Your task to perform on an android device: Open CNN.com Image 0: 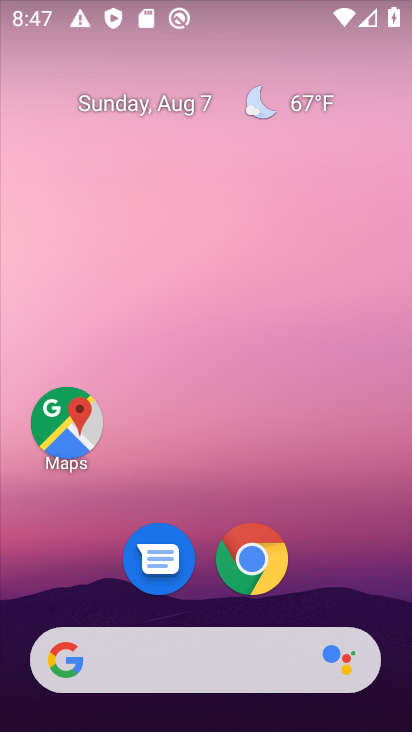
Step 0: click (281, 556)
Your task to perform on an android device: Open CNN.com Image 1: 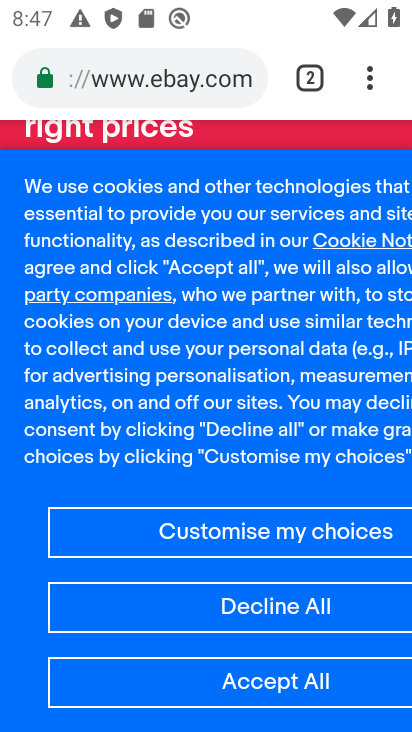
Step 1: click (316, 90)
Your task to perform on an android device: Open CNN.com Image 2: 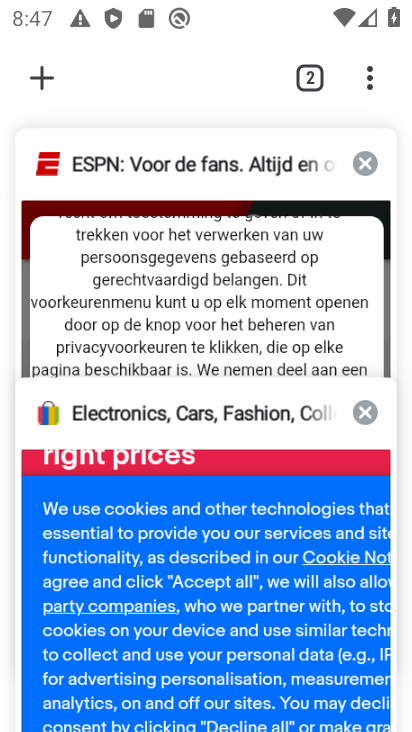
Step 2: click (364, 161)
Your task to perform on an android device: Open CNN.com Image 3: 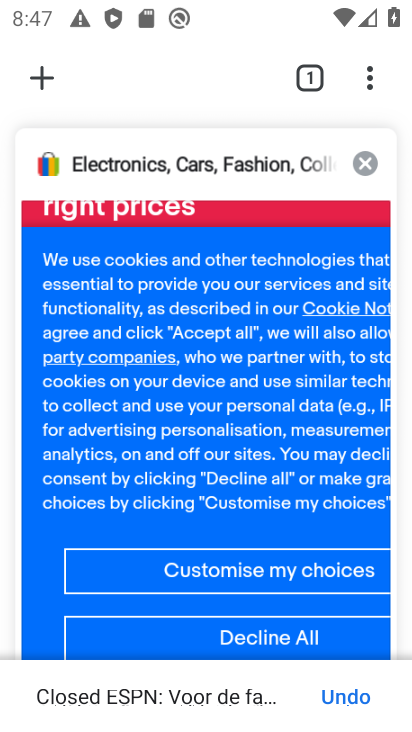
Step 3: click (364, 161)
Your task to perform on an android device: Open CNN.com Image 4: 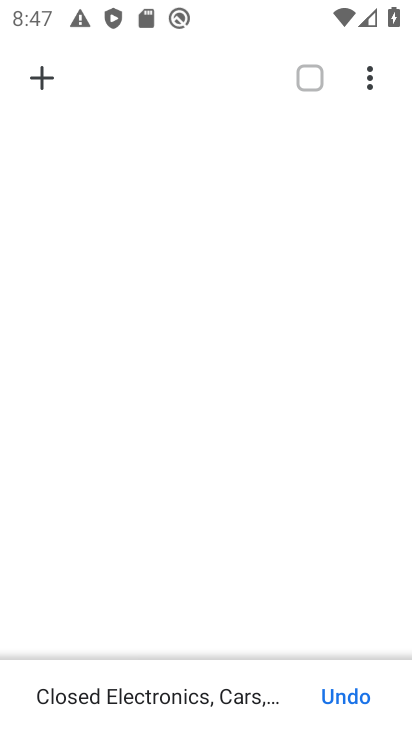
Step 4: click (35, 75)
Your task to perform on an android device: Open CNN.com Image 5: 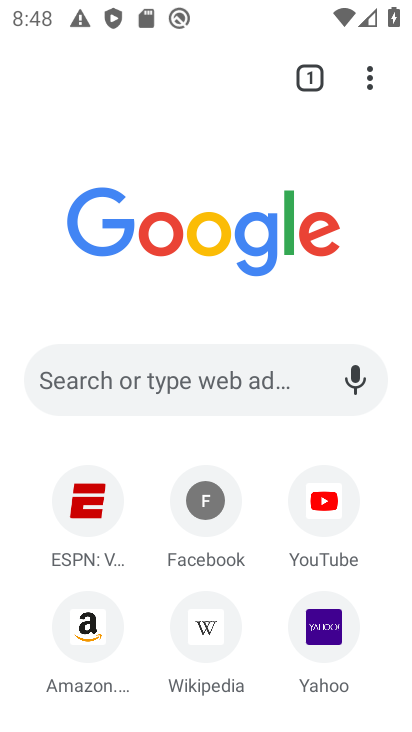
Step 5: click (202, 391)
Your task to perform on an android device: Open CNN.com Image 6: 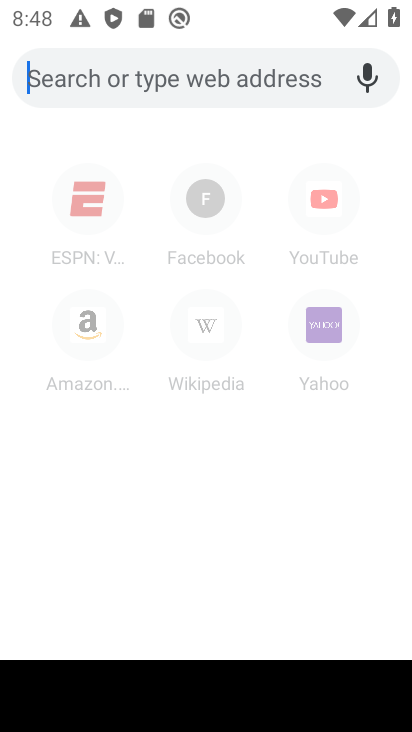
Step 6: type "cnn.com"
Your task to perform on an android device: Open CNN.com Image 7: 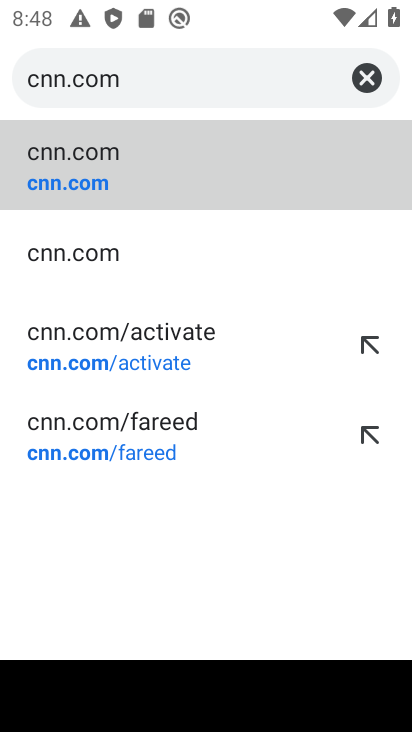
Step 7: click (182, 170)
Your task to perform on an android device: Open CNN.com Image 8: 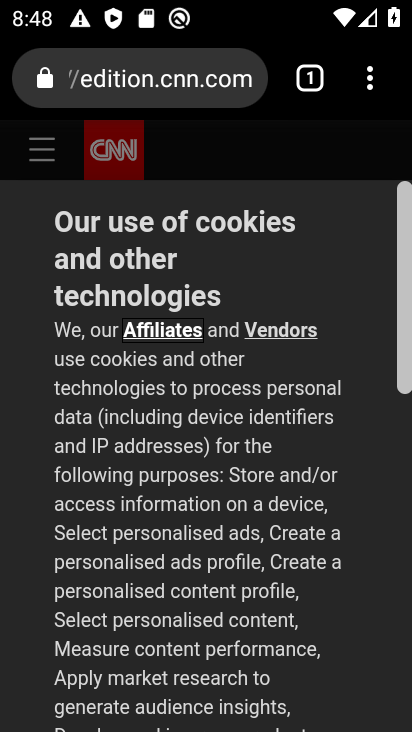
Step 8: task complete